Your task to perform on an android device: Open notification settings Image 0: 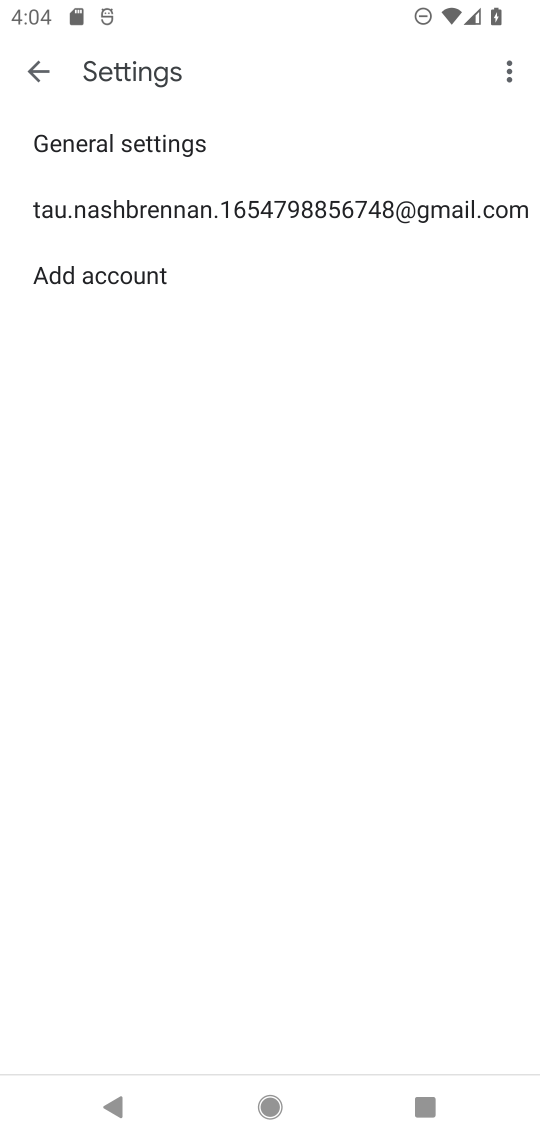
Step 0: press home button
Your task to perform on an android device: Open notification settings Image 1: 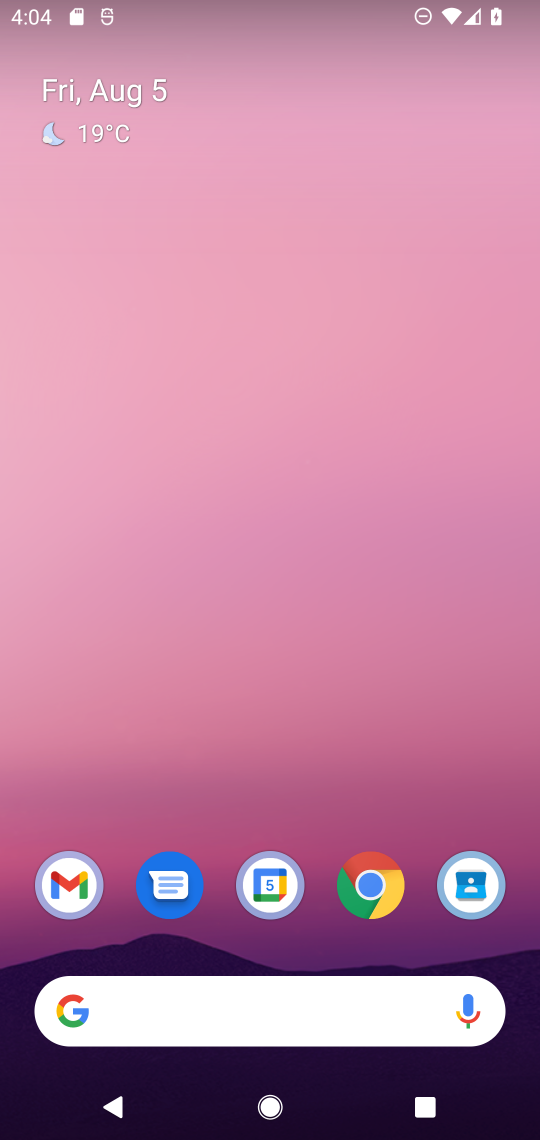
Step 1: drag from (330, 918) to (330, 152)
Your task to perform on an android device: Open notification settings Image 2: 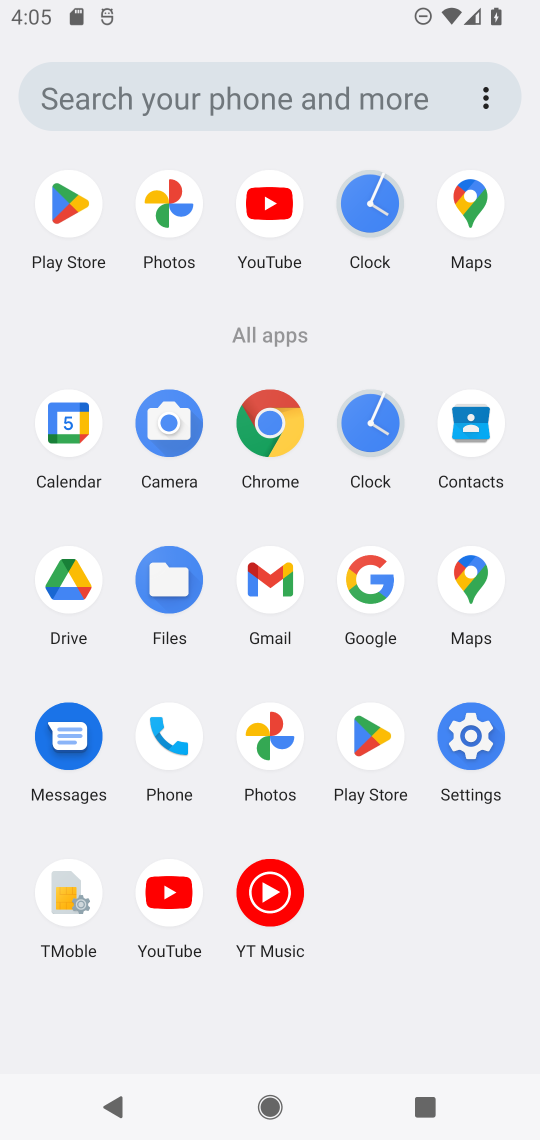
Step 2: click (486, 735)
Your task to perform on an android device: Open notification settings Image 3: 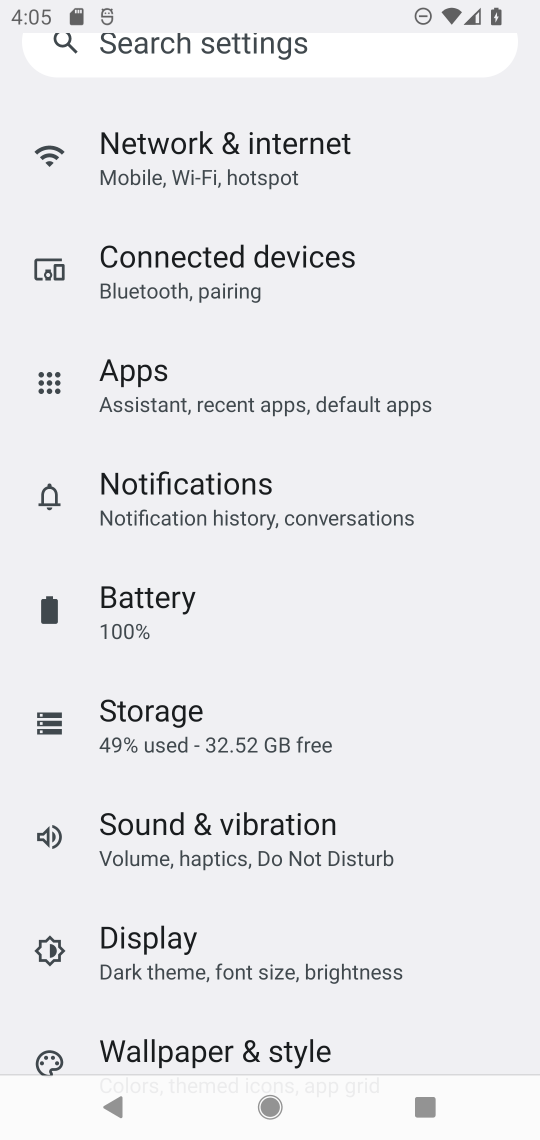
Step 3: click (177, 515)
Your task to perform on an android device: Open notification settings Image 4: 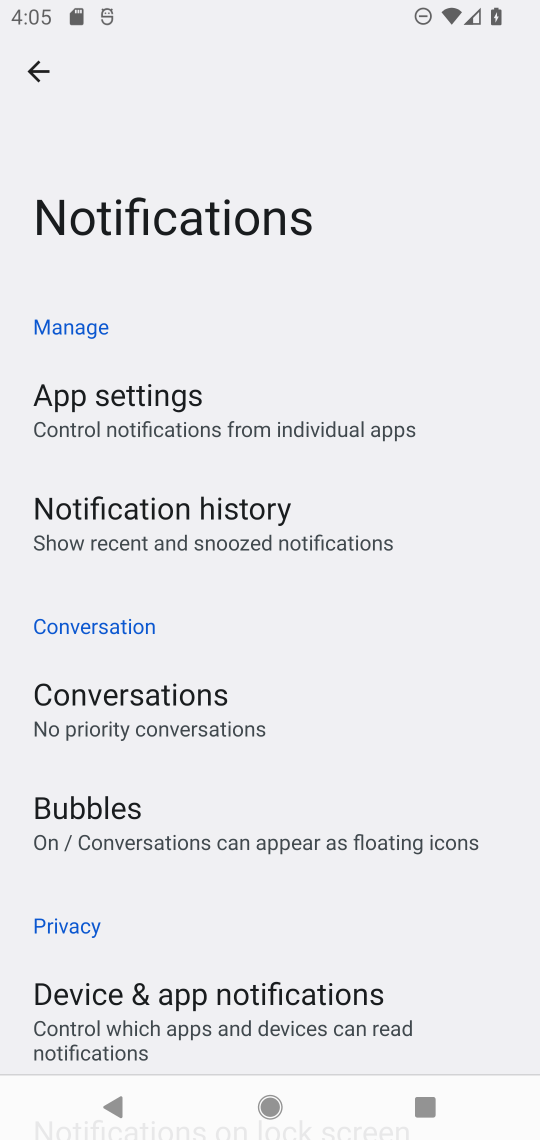
Step 4: task complete